Your task to perform on an android device: refresh tabs in the chrome app Image 0: 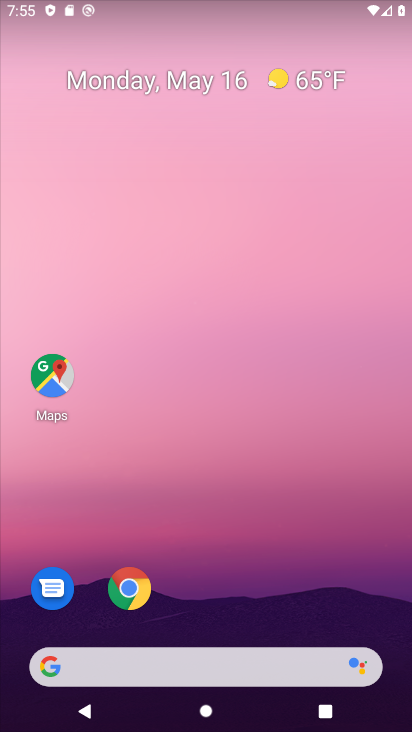
Step 0: drag from (368, 605) to (388, 235)
Your task to perform on an android device: refresh tabs in the chrome app Image 1: 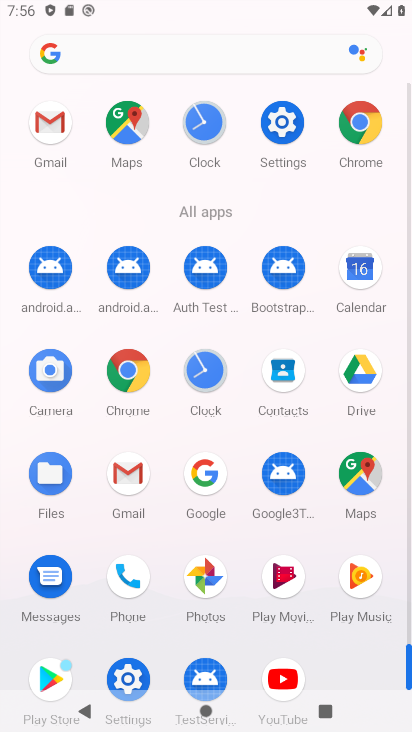
Step 1: click (361, 138)
Your task to perform on an android device: refresh tabs in the chrome app Image 2: 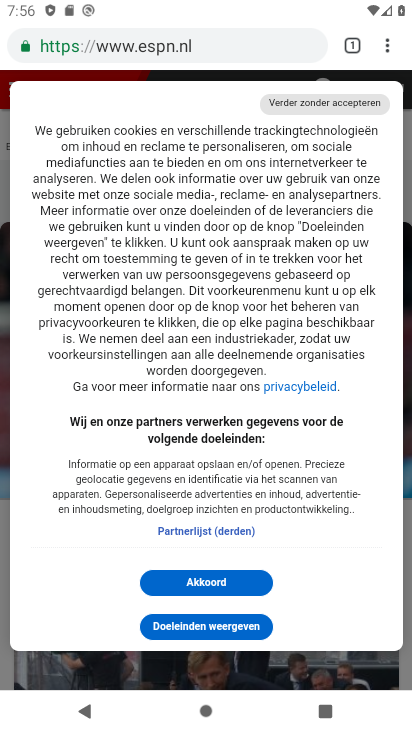
Step 2: click (387, 47)
Your task to perform on an android device: refresh tabs in the chrome app Image 3: 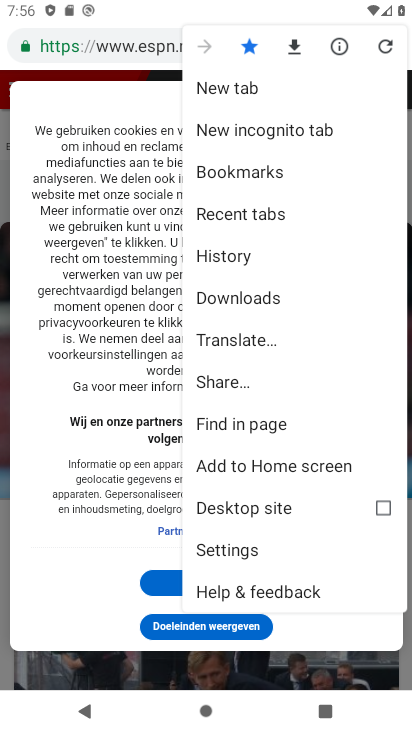
Step 3: click (387, 47)
Your task to perform on an android device: refresh tabs in the chrome app Image 4: 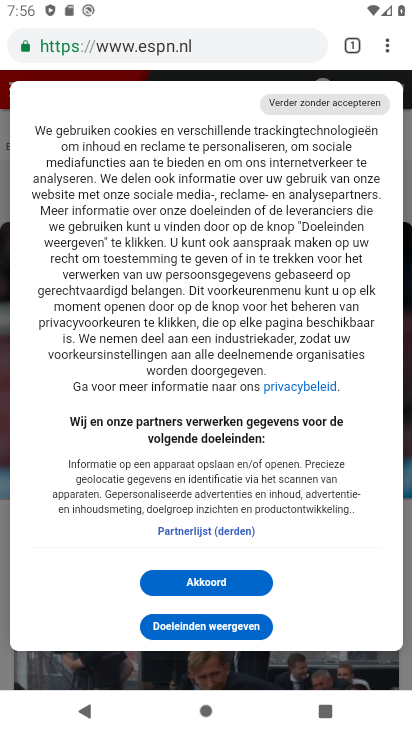
Step 4: task complete